Your task to perform on an android device: turn on javascript in the chrome app Image 0: 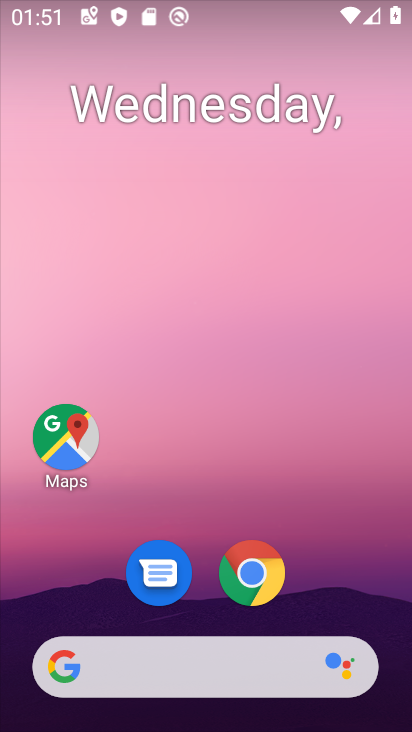
Step 0: click (256, 571)
Your task to perform on an android device: turn on javascript in the chrome app Image 1: 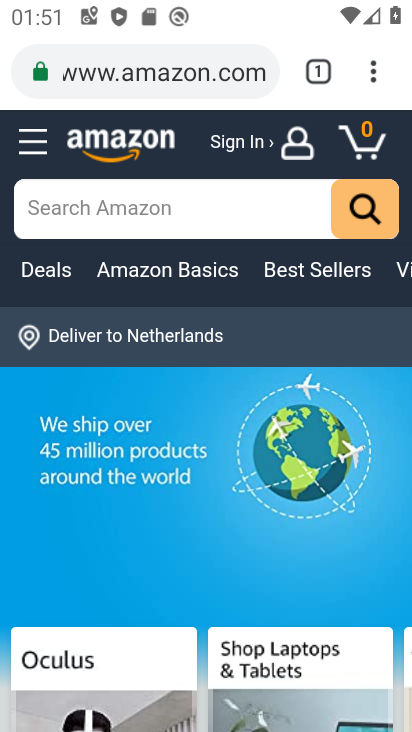
Step 1: click (375, 73)
Your task to perform on an android device: turn on javascript in the chrome app Image 2: 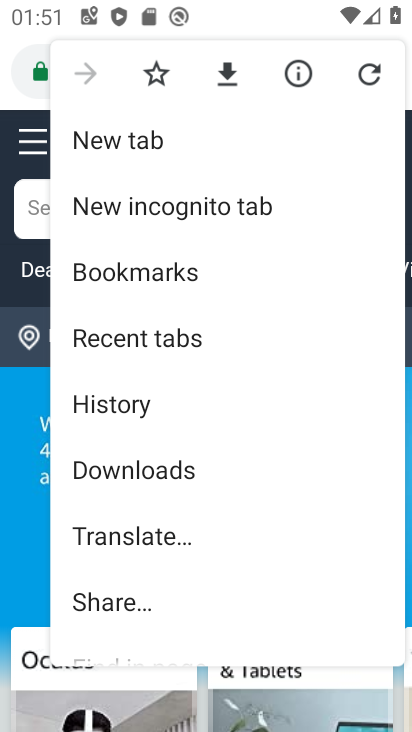
Step 2: drag from (203, 538) to (231, 402)
Your task to perform on an android device: turn on javascript in the chrome app Image 3: 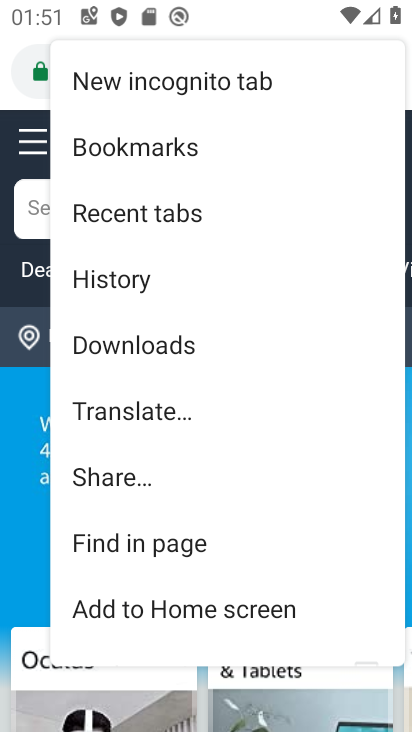
Step 3: drag from (223, 510) to (262, 357)
Your task to perform on an android device: turn on javascript in the chrome app Image 4: 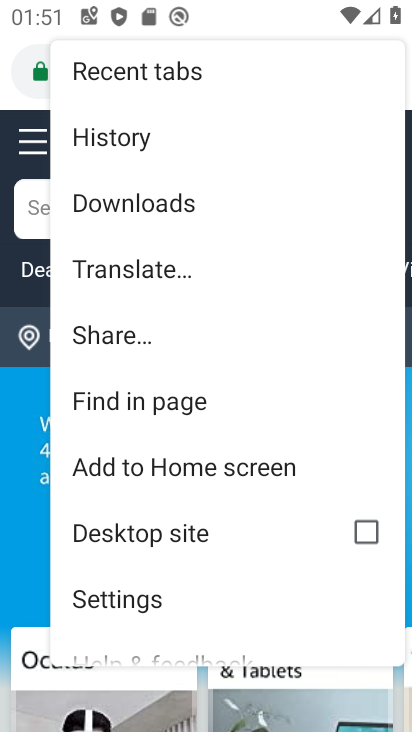
Step 4: drag from (165, 574) to (248, 434)
Your task to perform on an android device: turn on javascript in the chrome app Image 5: 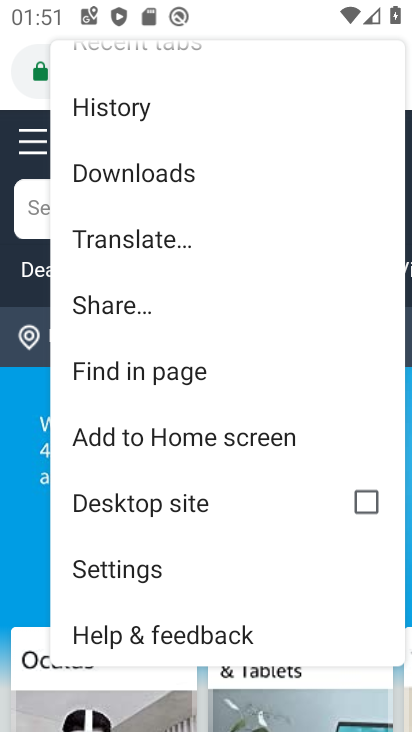
Step 5: click (141, 566)
Your task to perform on an android device: turn on javascript in the chrome app Image 6: 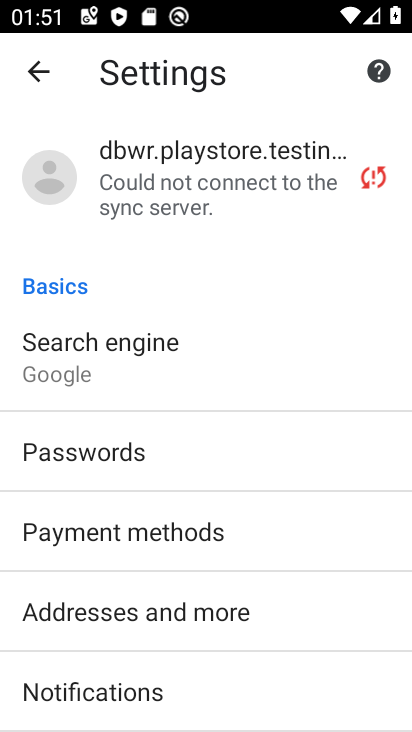
Step 6: drag from (200, 539) to (279, 367)
Your task to perform on an android device: turn on javascript in the chrome app Image 7: 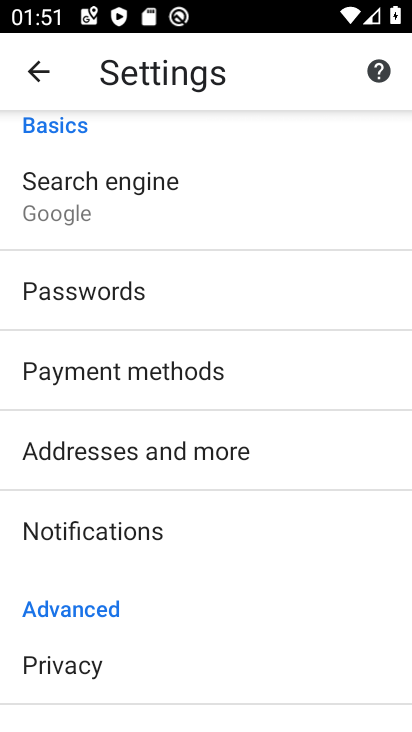
Step 7: drag from (204, 552) to (289, 401)
Your task to perform on an android device: turn on javascript in the chrome app Image 8: 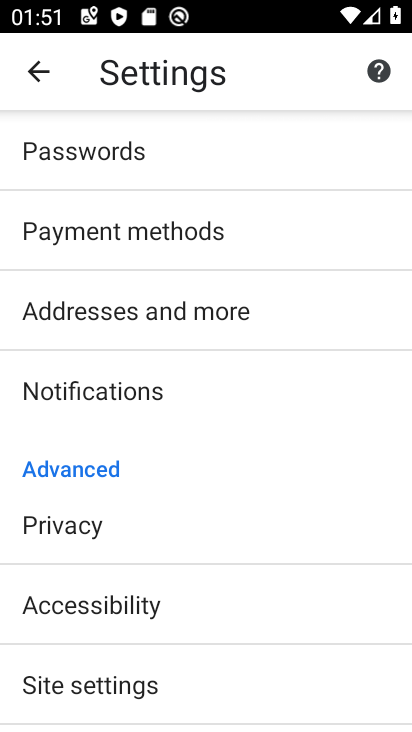
Step 8: drag from (214, 580) to (307, 414)
Your task to perform on an android device: turn on javascript in the chrome app Image 9: 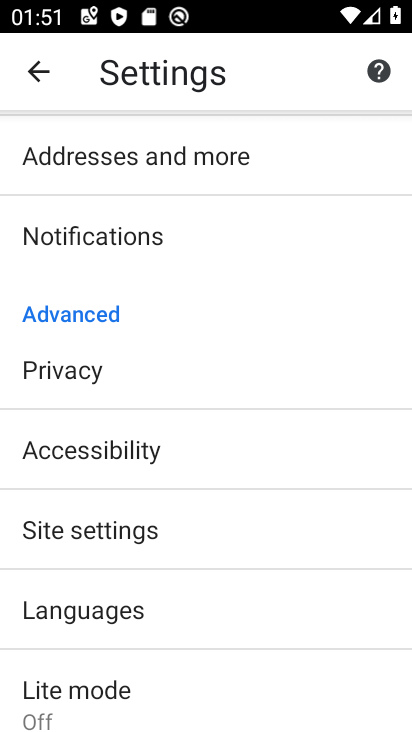
Step 9: drag from (219, 571) to (305, 428)
Your task to perform on an android device: turn on javascript in the chrome app Image 10: 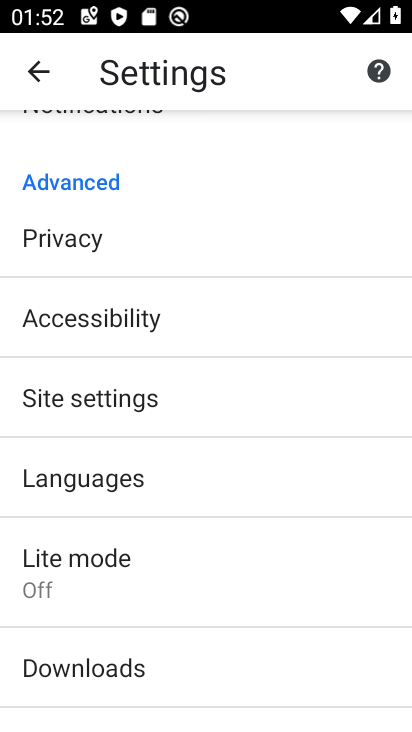
Step 10: click (136, 404)
Your task to perform on an android device: turn on javascript in the chrome app Image 11: 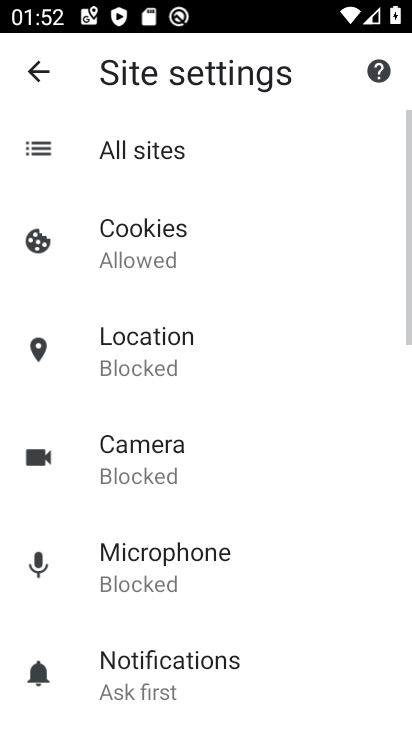
Step 11: drag from (225, 566) to (287, 421)
Your task to perform on an android device: turn on javascript in the chrome app Image 12: 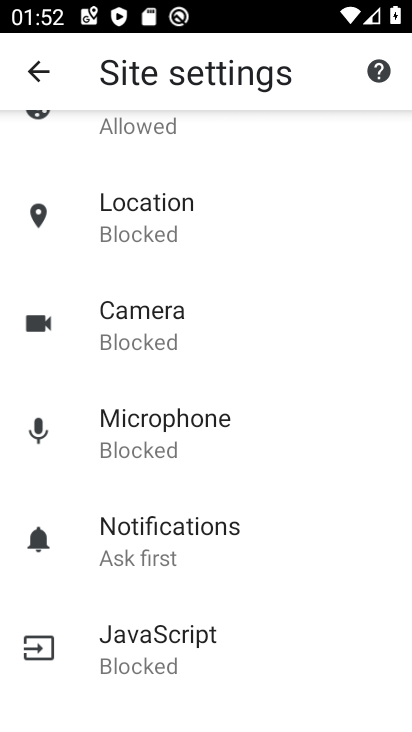
Step 12: drag from (230, 606) to (303, 489)
Your task to perform on an android device: turn on javascript in the chrome app Image 13: 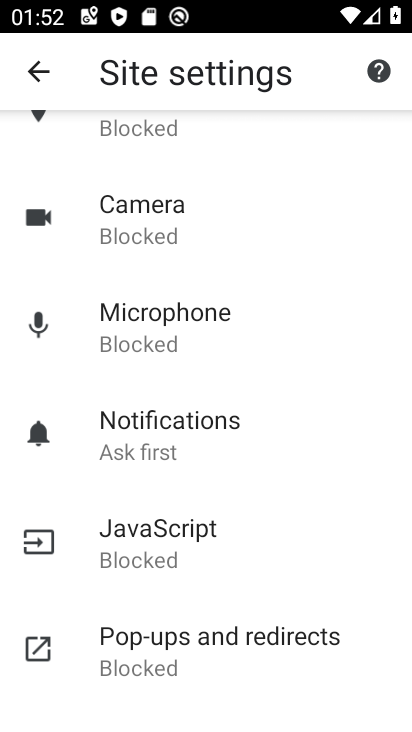
Step 13: click (164, 528)
Your task to perform on an android device: turn on javascript in the chrome app Image 14: 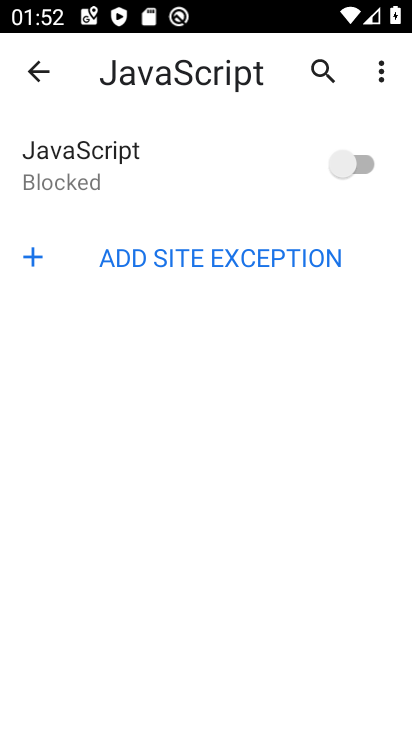
Step 14: click (352, 161)
Your task to perform on an android device: turn on javascript in the chrome app Image 15: 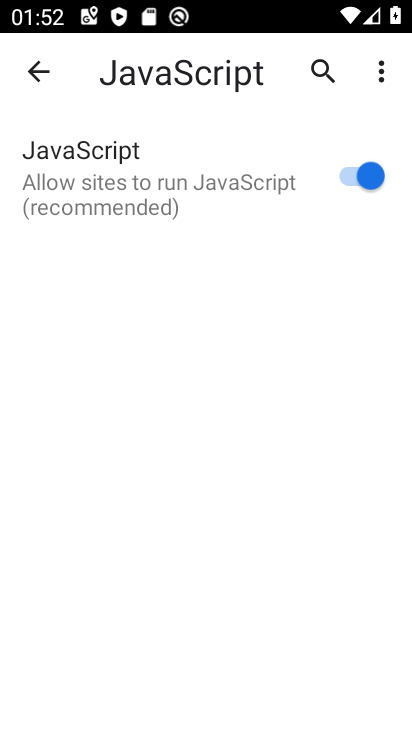
Step 15: task complete